Your task to perform on an android device: turn vacation reply on in the gmail app Image 0: 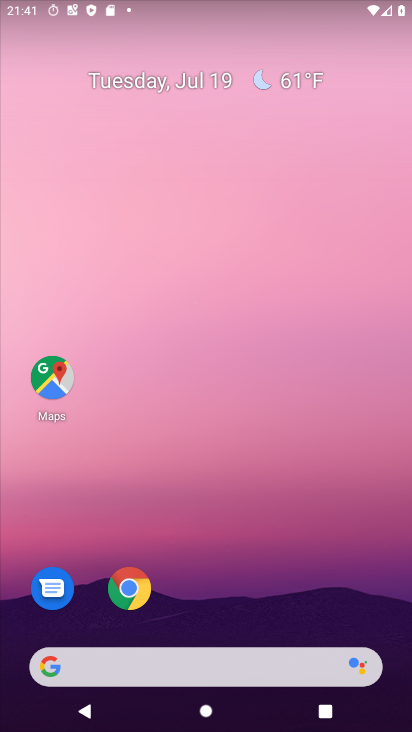
Step 0: press home button
Your task to perform on an android device: turn vacation reply on in the gmail app Image 1: 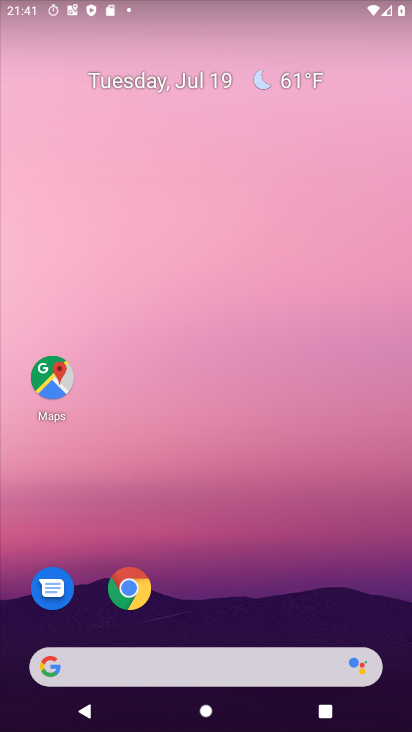
Step 1: drag from (211, 623) to (218, 55)
Your task to perform on an android device: turn vacation reply on in the gmail app Image 2: 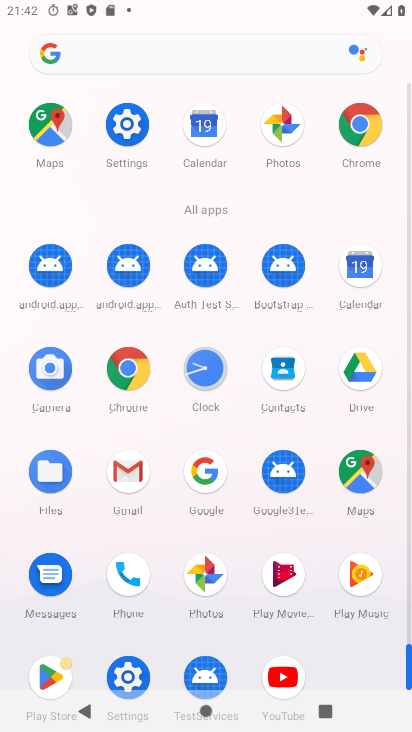
Step 2: click (123, 460)
Your task to perform on an android device: turn vacation reply on in the gmail app Image 3: 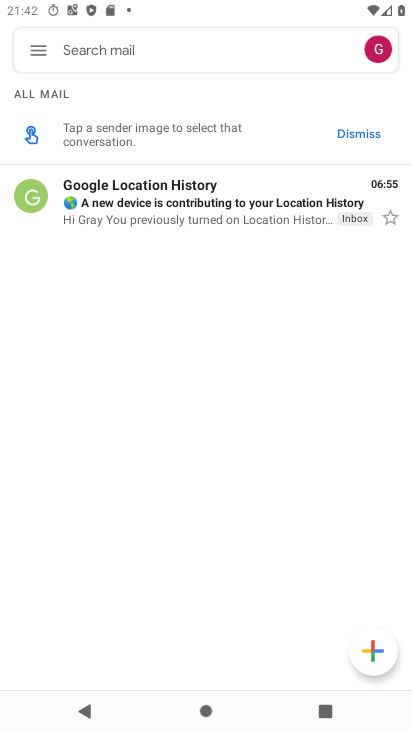
Step 3: click (38, 39)
Your task to perform on an android device: turn vacation reply on in the gmail app Image 4: 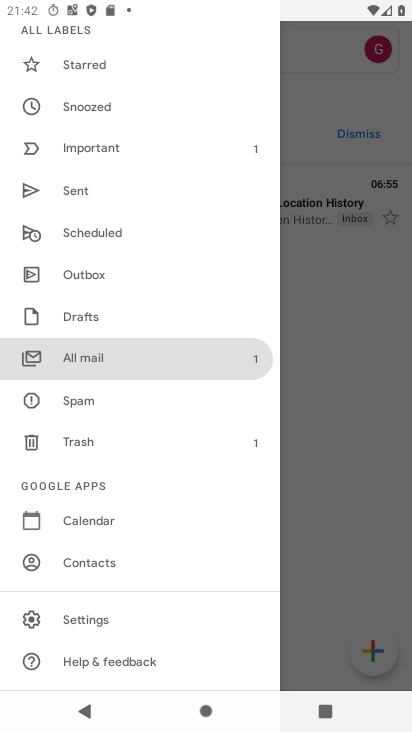
Step 4: click (124, 618)
Your task to perform on an android device: turn vacation reply on in the gmail app Image 5: 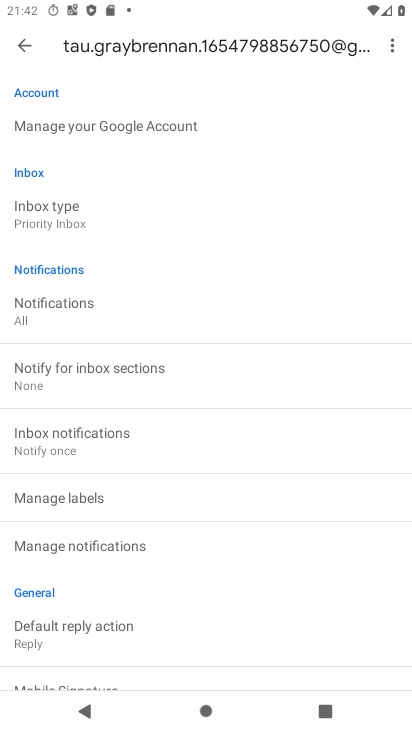
Step 5: drag from (156, 655) to (189, 65)
Your task to perform on an android device: turn vacation reply on in the gmail app Image 6: 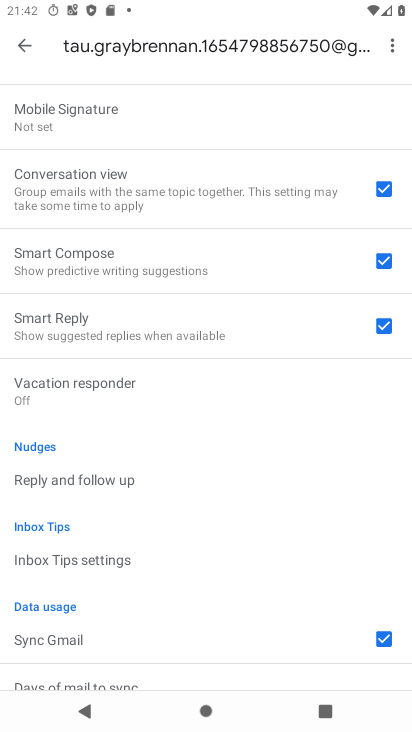
Step 6: click (150, 388)
Your task to perform on an android device: turn vacation reply on in the gmail app Image 7: 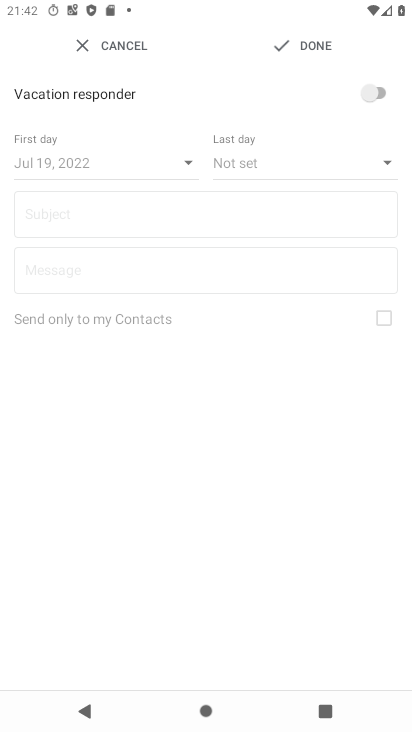
Step 7: task complete